Your task to perform on an android device: Go to display settings Image 0: 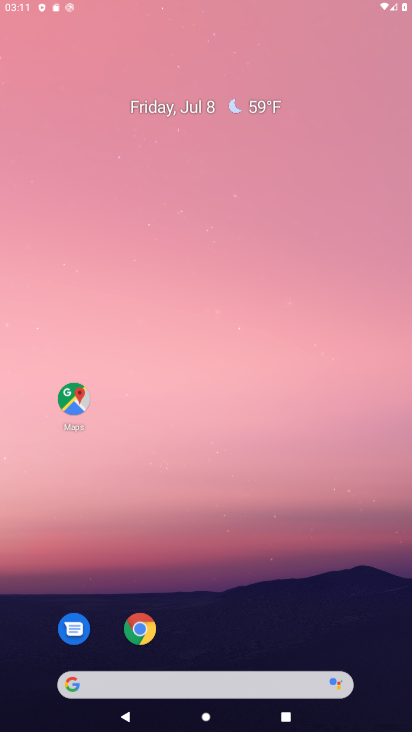
Step 0: press home button
Your task to perform on an android device: Go to display settings Image 1: 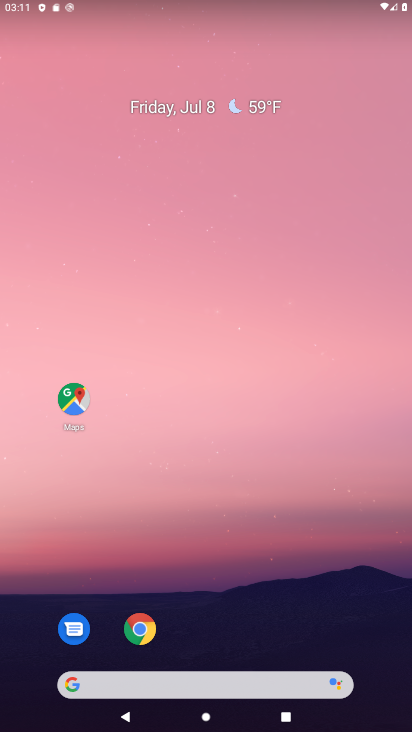
Step 1: drag from (226, 652) to (277, 142)
Your task to perform on an android device: Go to display settings Image 2: 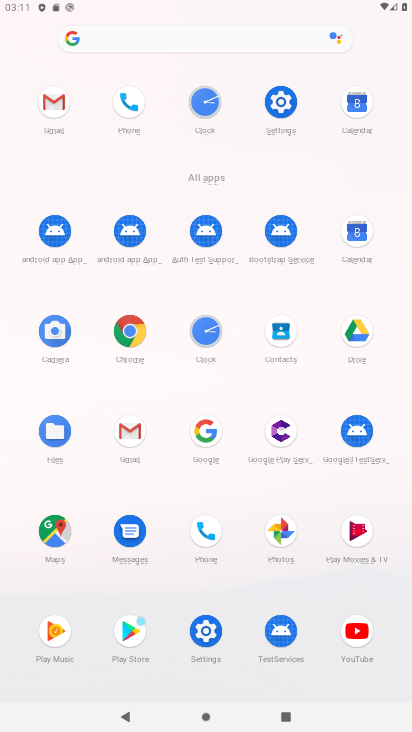
Step 2: click (278, 95)
Your task to perform on an android device: Go to display settings Image 3: 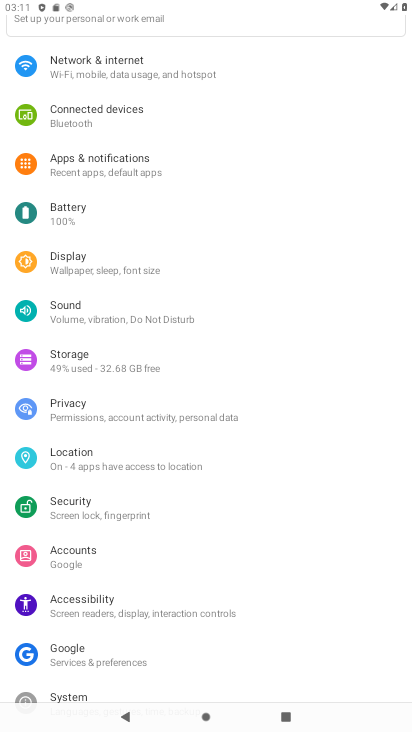
Step 3: click (89, 256)
Your task to perform on an android device: Go to display settings Image 4: 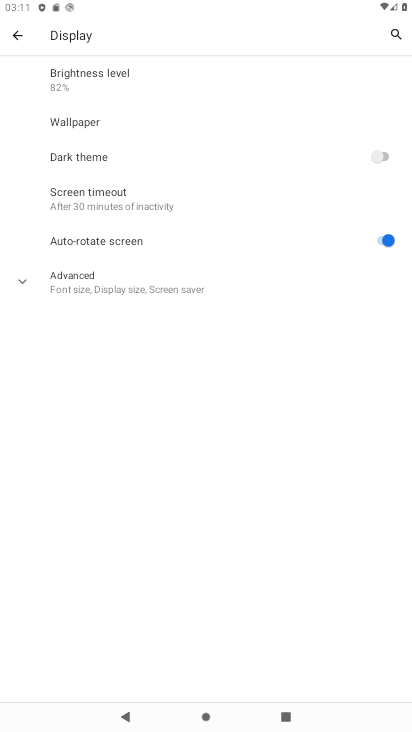
Step 4: click (25, 280)
Your task to perform on an android device: Go to display settings Image 5: 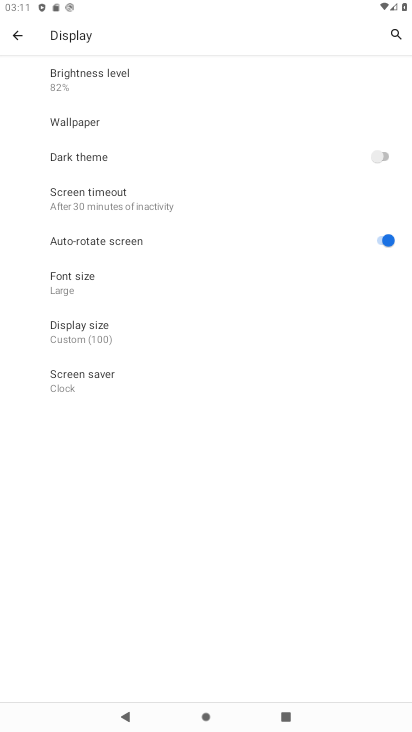
Step 5: task complete